Your task to perform on an android device: open the mobile data screen to see how much data has been used Image 0: 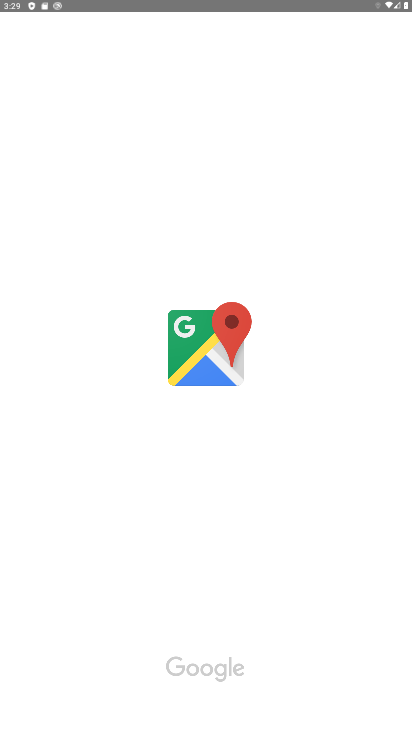
Step 0: click (243, 50)
Your task to perform on an android device: open the mobile data screen to see how much data has been used Image 1: 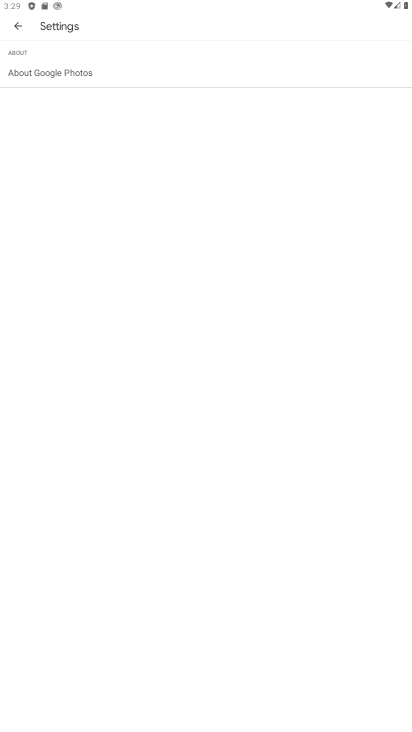
Step 1: press home button
Your task to perform on an android device: open the mobile data screen to see how much data has been used Image 2: 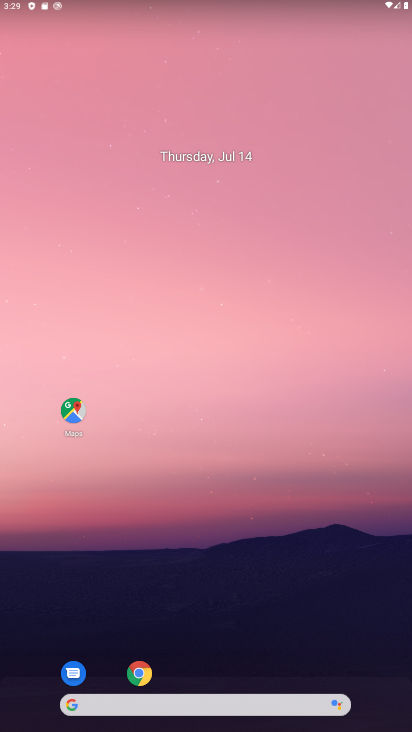
Step 2: drag from (230, 637) to (252, 73)
Your task to perform on an android device: open the mobile data screen to see how much data has been used Image 3: 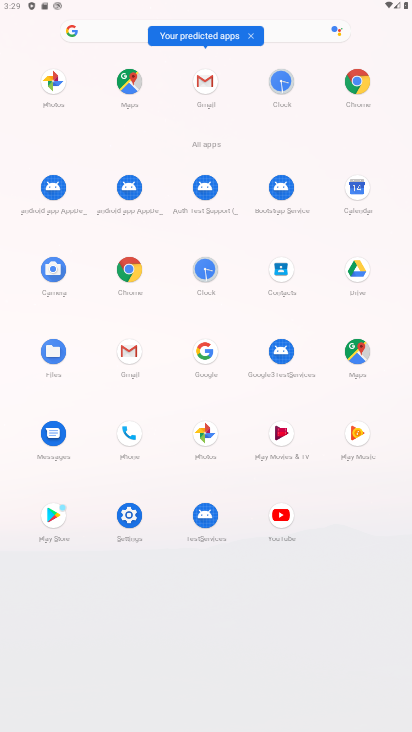
Step 3: click (120, 516)
Your task to perform on an android device: open the mobile data screen to see how much data has been used Image 4: 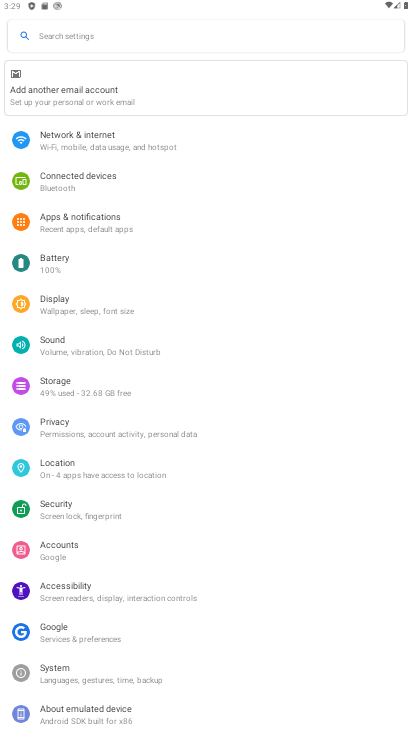
Step 4: click (83, 145)
Your task to perform on an android device: open the mobile data screen to see how much data has been used Image 5: 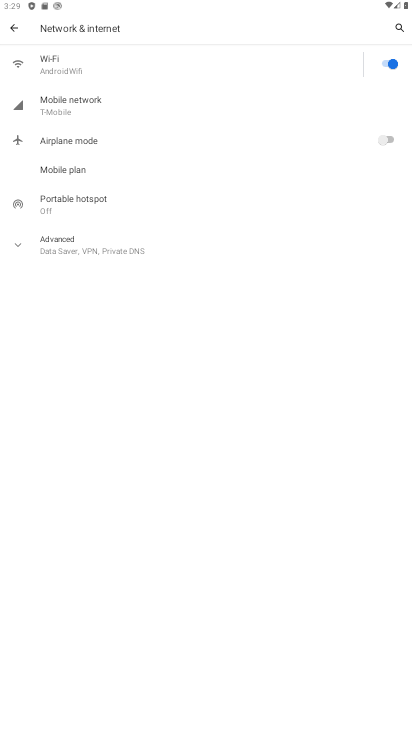
Step 5: click (93, 111)
Your task to perform on an android device: open the mobile data screen to see how much data has been used Image 6: 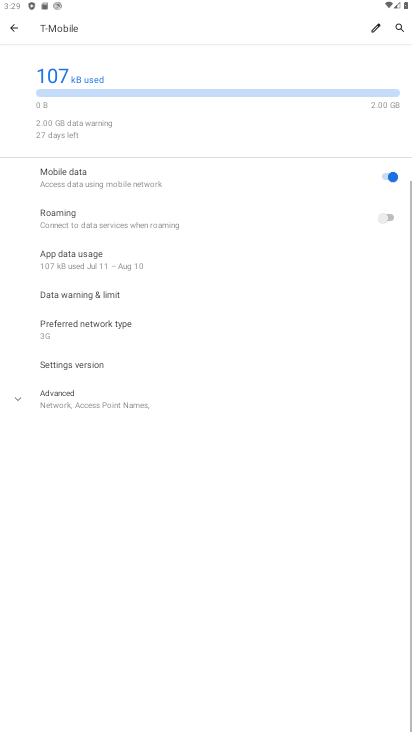
Step 6: click (91, 260)
Your task to perform on an android device: open the mobile data screen to see how much data has been used Image 7: 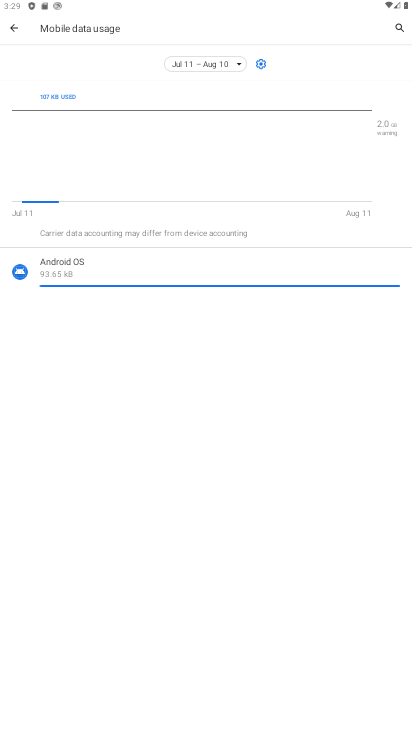
Step 7: task complete